Your task to perform on an android device: turn off location history Image 0: 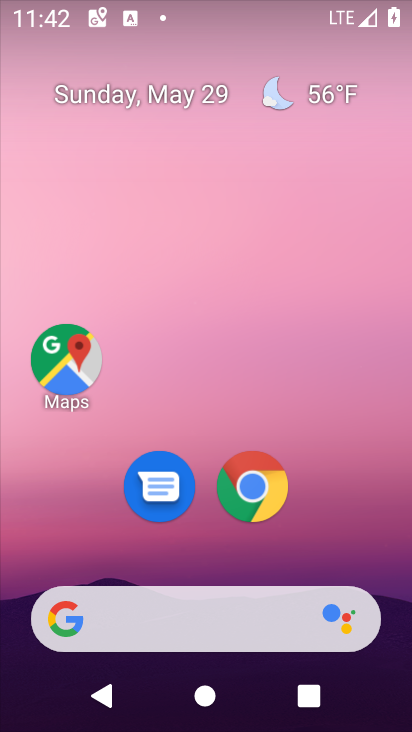
Step 0: drag from (249, 578) to (282, 126)
Your task to perform on an android device: turn off location history Image 1: 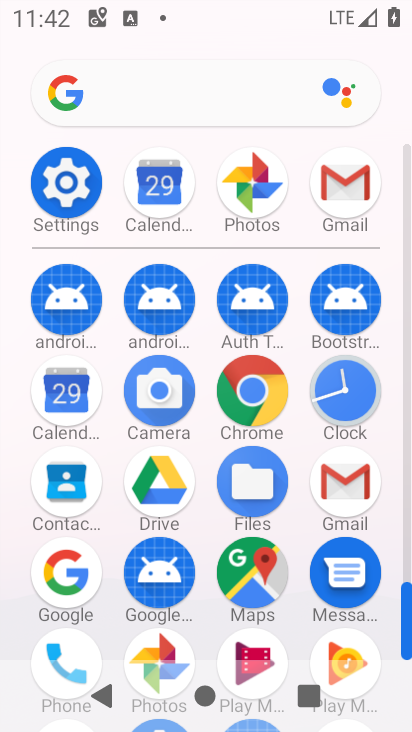
Step 1: click (84, 203)
Your task to perform on an android device: turn off location history Image 2: 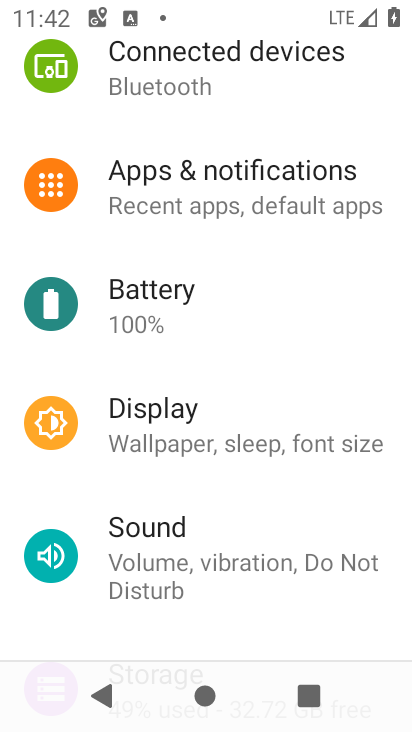
Step 2: drag from (198, 483) to (219, 267)
Your task to perform on an android device: turn off location history Image 3: 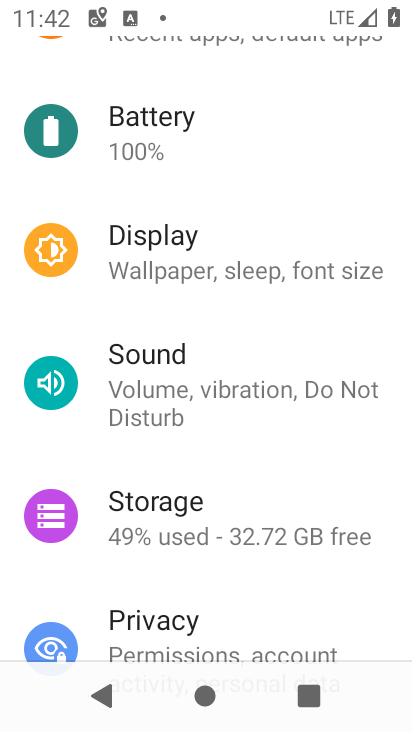
Step 3: drag from (190, 517) to (214, 197)
Your task to perform on an android device: turn off location history Image 4: 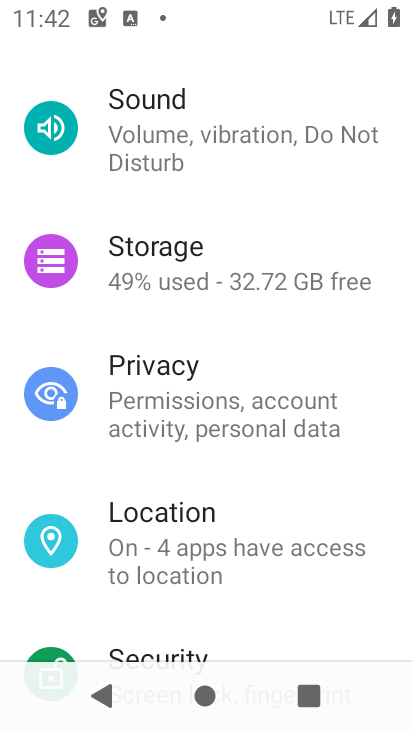
Step 4: click (200, 554)
Your task to perform on an android device: turn off location history Image 5: 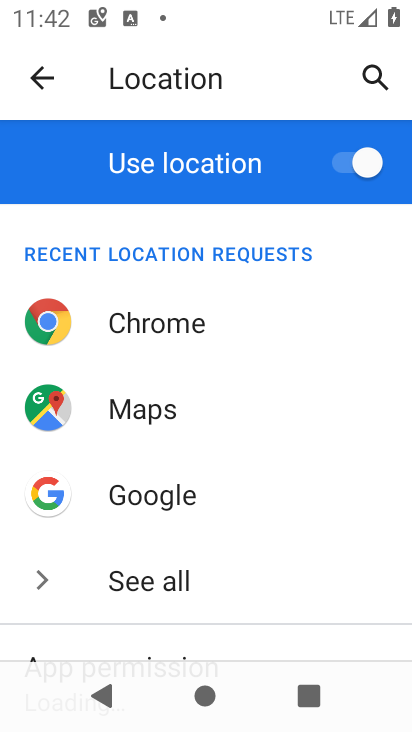
Step 5: drag from (199, 553) to (228, 171)
Your task to perform on an android device: turn off location history Image 6: 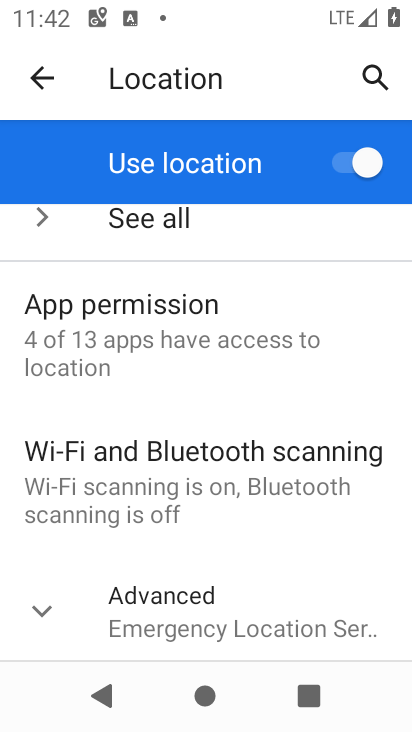
Step 6: click (216, 607)
Your task to perform on an android device: turn off location history Image 7: 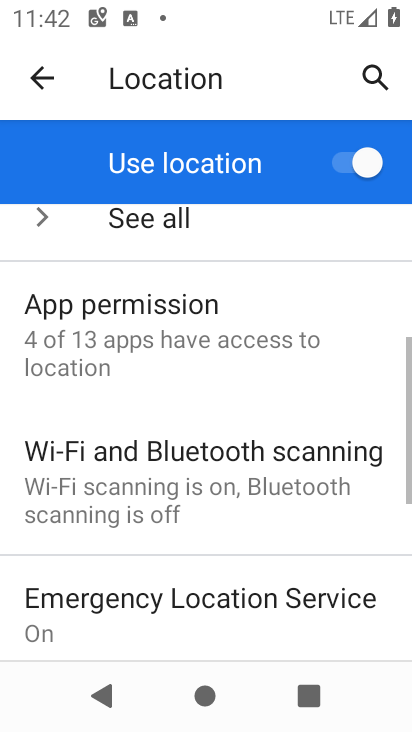
Step 7: drag from (233, 424) to (282, 130)
Your task to perform on an android device: turn off location history Image 8: 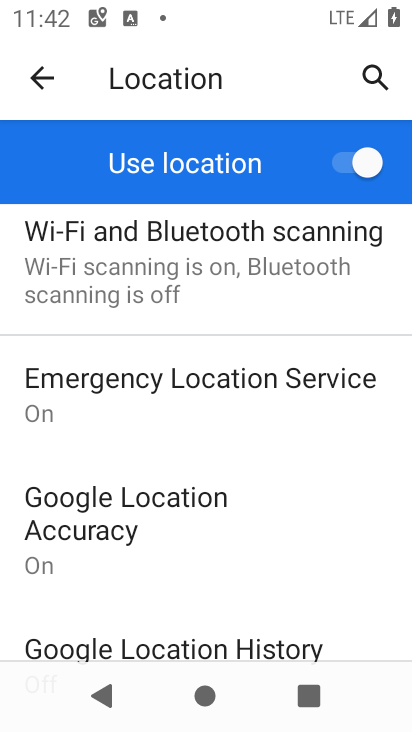
Step 8: click (254, 643)
Your task to perform on an android device: turn off location history Image 9: 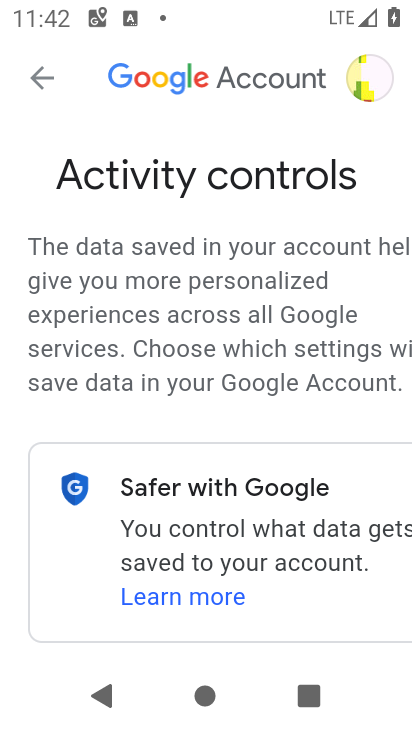
Step 9: task complete